Your task to perform on an android device: Open Reddit.com Image 0: 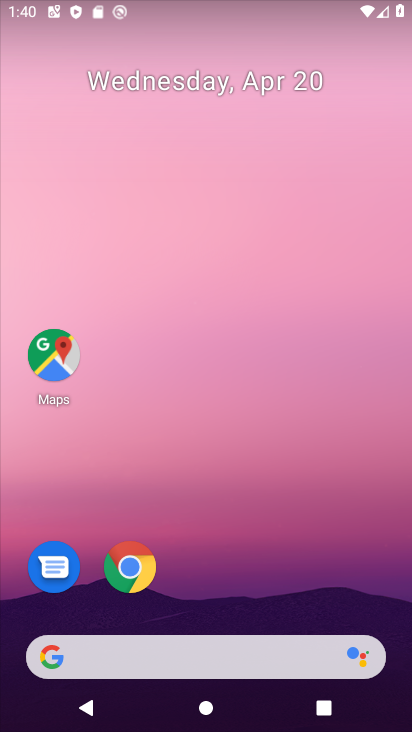
Step 0: click (130, 587)
Your task to perform on an android device: Open Reddit.com Image 1: 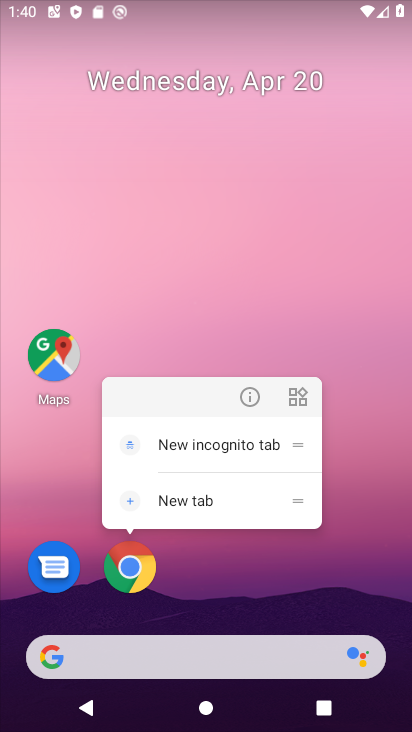
Step 1: click (121, 558)
Your task to perform on an android device: Open Reddit.com Image 2: 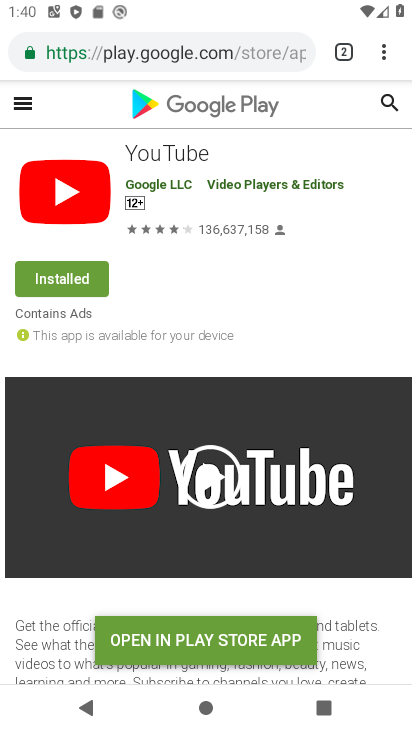
Step 2: click (179, 54)
Your task to perform on an android device: Open Reddit.com Image 3: 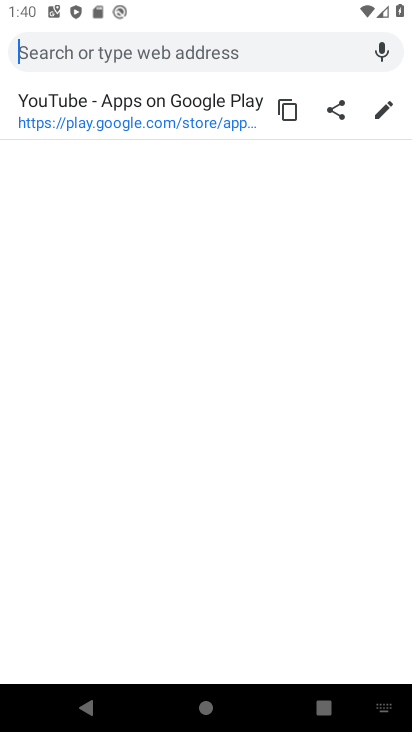
Step 3: type "Reddit.com"
Your task to perform on an android device: Open Reddit.com Image 4: 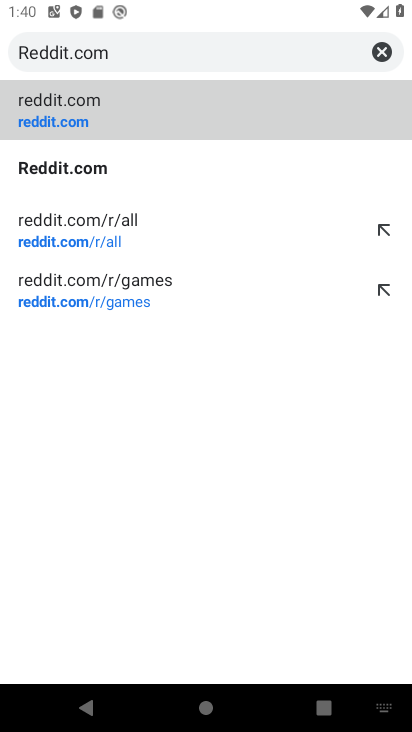
Step 4: click (45, 117)
Your task to perform on an android device: Open Reddit.com Image 5: 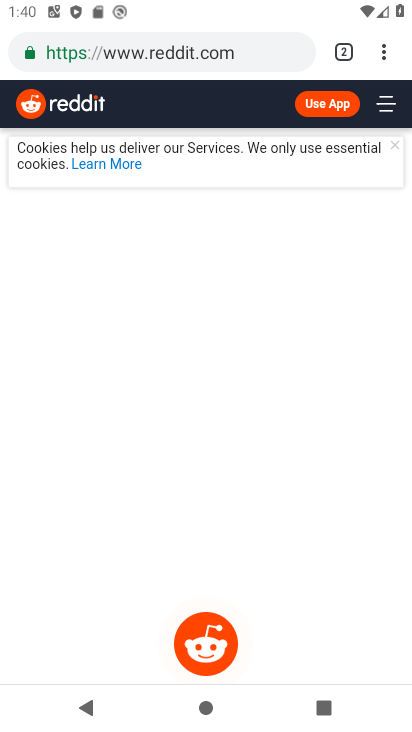
Step 5: task complete